Your task to perform on an android device: What is the news today? Image 0: 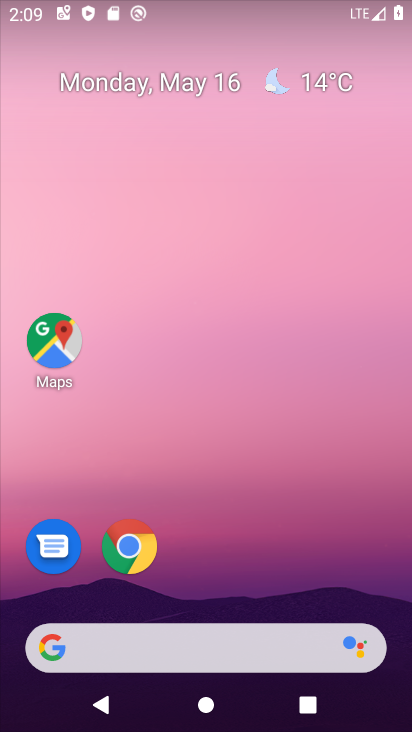
Step 0: drag from (275, 675) to (244, 135)
Your task to perform on an android device: What is the news today? Image 1: 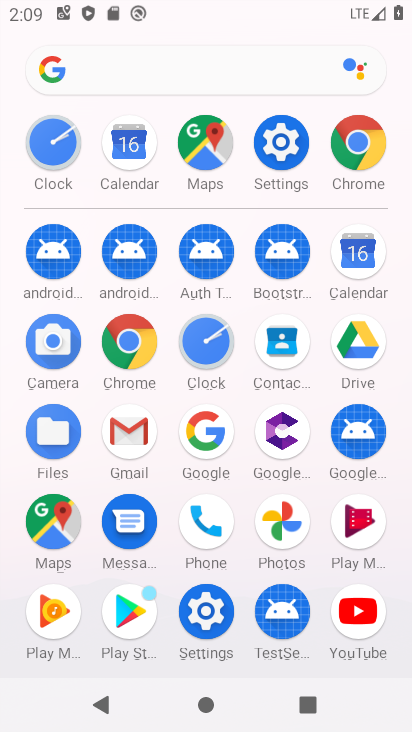
Step 1: click (153, 81)
Your task to perform on an android device: What is the news today? Image 2: 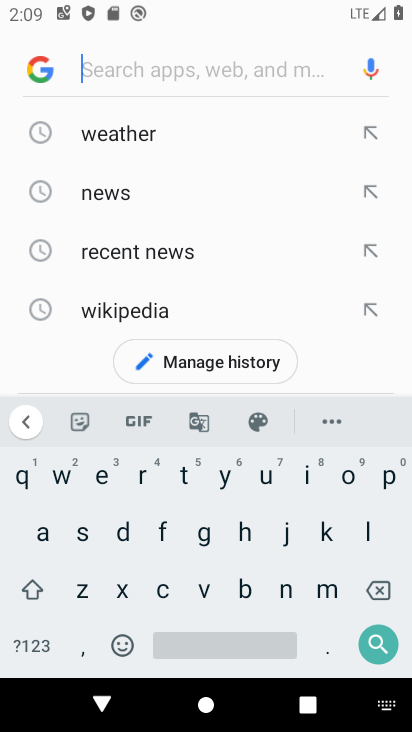
Step 2: click (111, 196)
Your task to perform on an android device: What is the news today? Image 3: 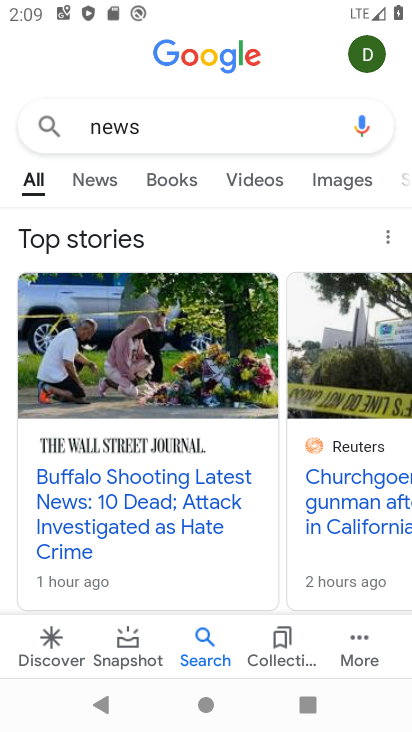
Step 3: task complete